Your task to perform on an android device: Open Amazon Image 0: 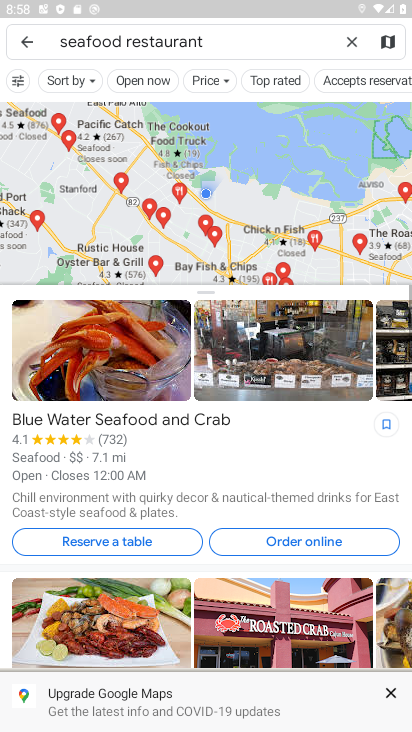
Step 0: press back button
Your task to perform on an android device: Open Amazon Image 1: 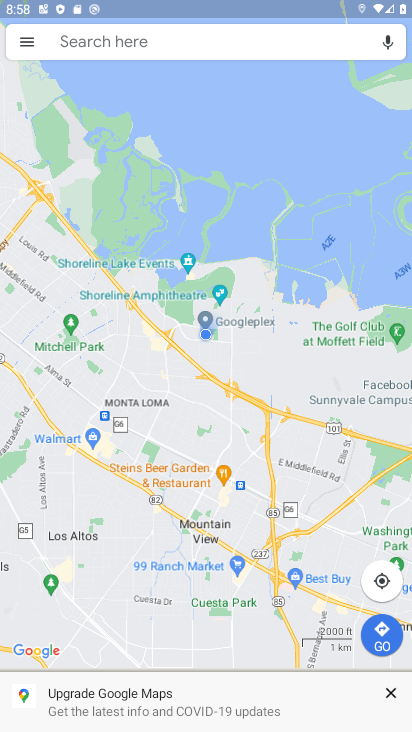
Step 1: press back button
Your task to perform on an android device: Open Amazon Image 2: 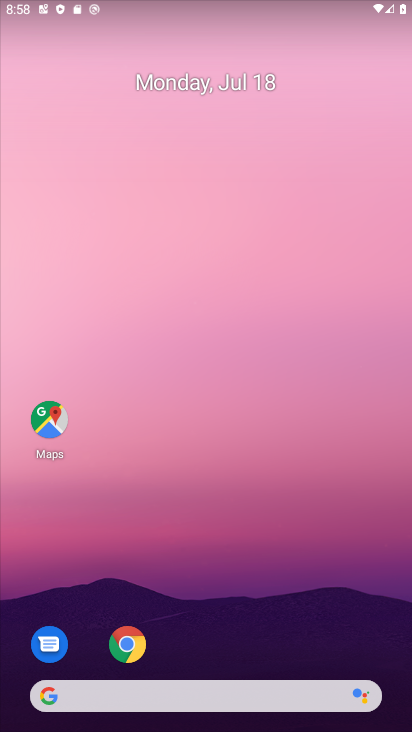
Step 2: click (122, 644)
Your task to perform on an android device: Open Amazon Image 3: 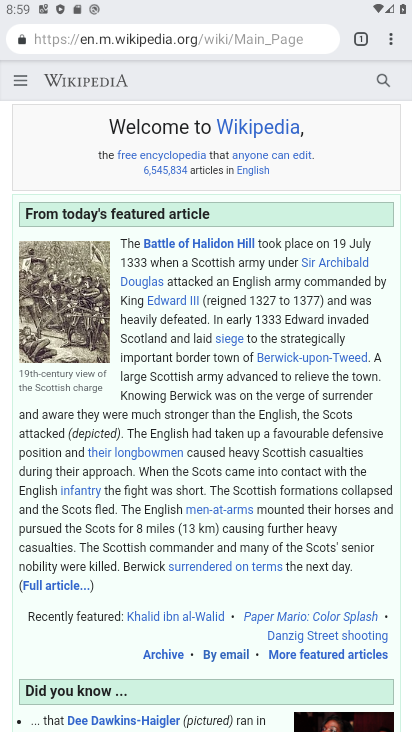
Step 3: click (363, 43)
Your task to perform on an android device: Open Amazon Image 4: 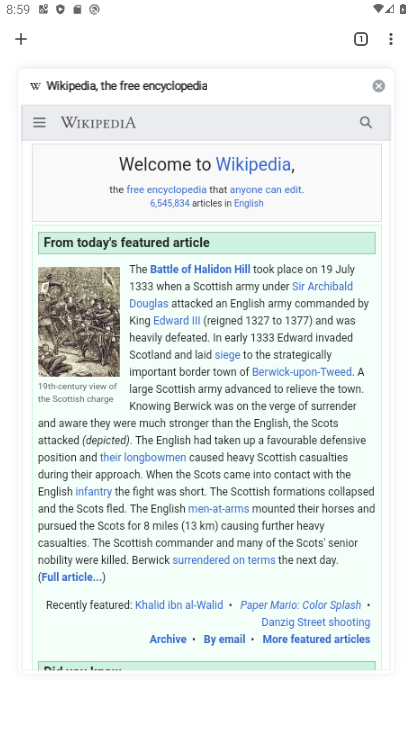
Step 4: click (15, 34)
Your task to perform on an android device: Open Amazon Image 5: 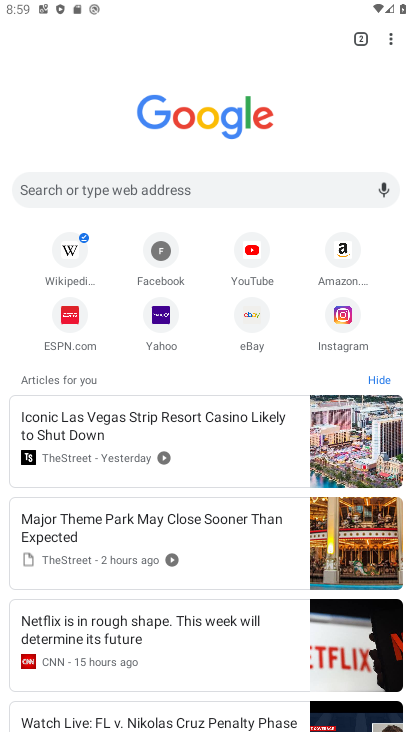
Step 5: click (347, 250)
Your task to perform on an android device: Open Amazon Image 6: 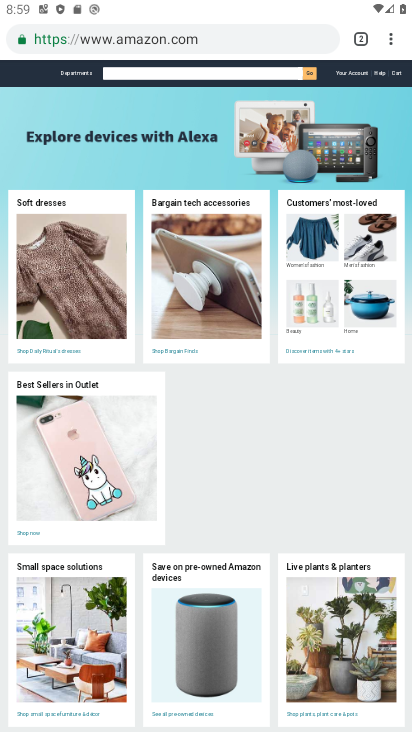
Step 6: task complete